Your task to perform on an android device: Open the phone app and click the voicemail tab. Image 0: 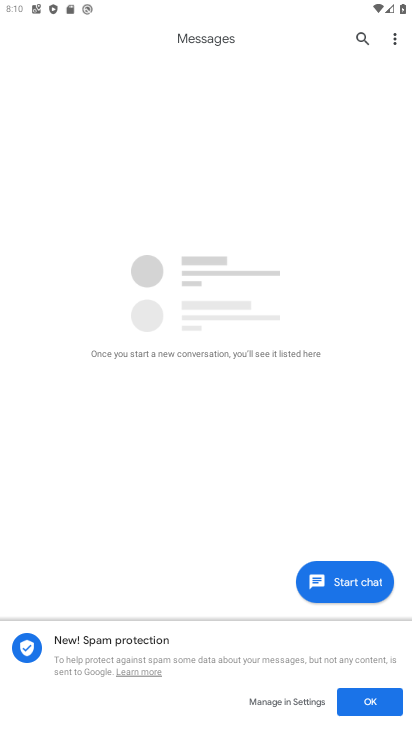
Step 0: press back button
Your task to perform on an android device: Open the phone app and click the voicemail tab. Image 1: 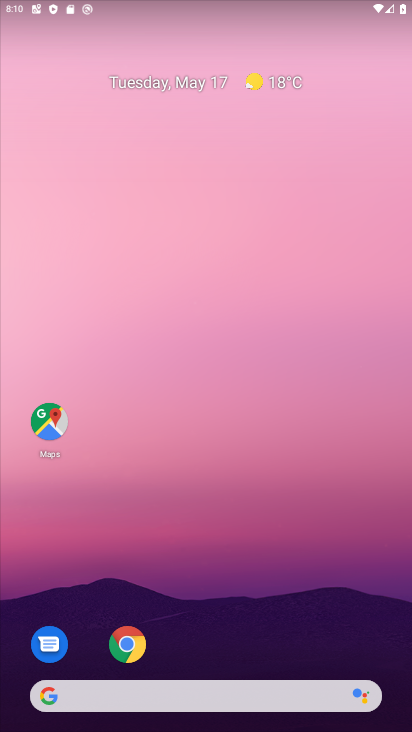
Step 1: drag from (259, 639) to (329, 45)
Your task to perform on an android device: Open the phone app and click the voicemail tab. Image 2: 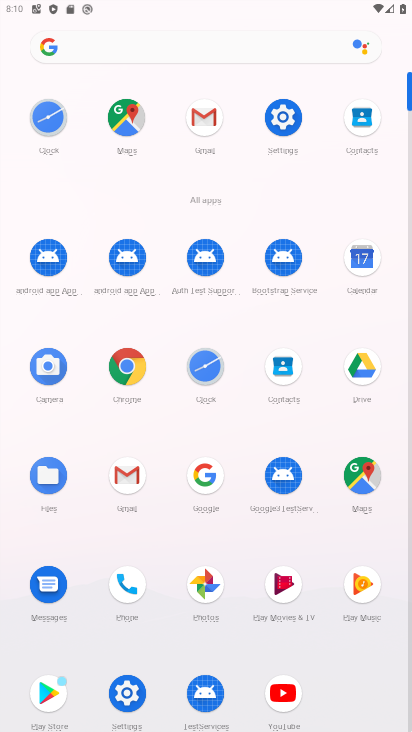
Step 2: click (117, 594)
Your task to perform on an android device: Open the phone app and click the voicemail tab. Image 3: 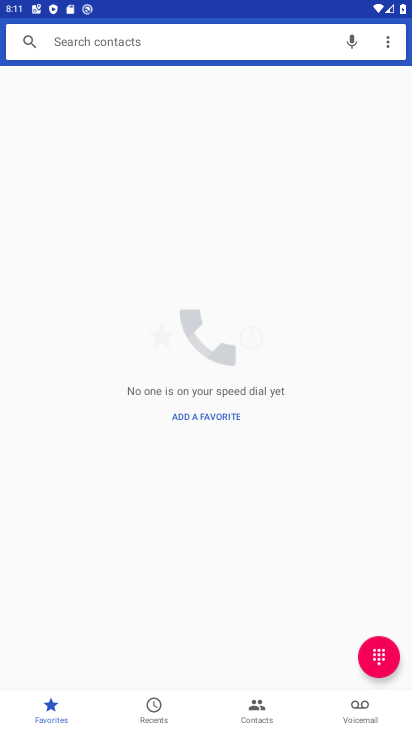
Step 3: click (348, 710)
Your task to perform on an android device: Open the phone app and click the voicemail tab. Image 4: 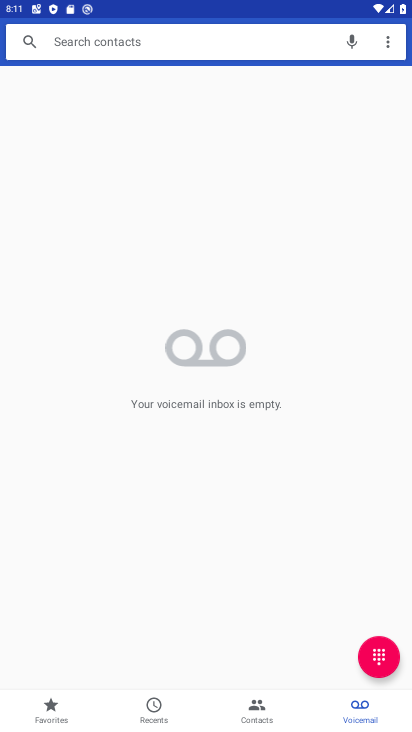
Step 4: task complete